Your task to perform on an android device: Go to Android settings Image 0: 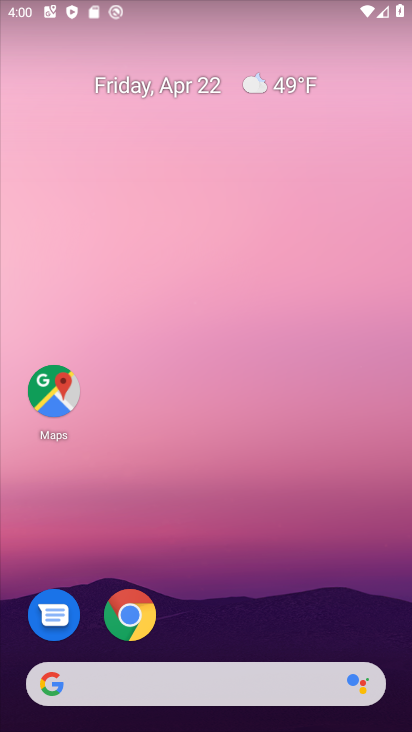
Step 0: drag from (224, 722) to (224, 81)
Your task to perform on an android device: Go to Android settings Image 1: 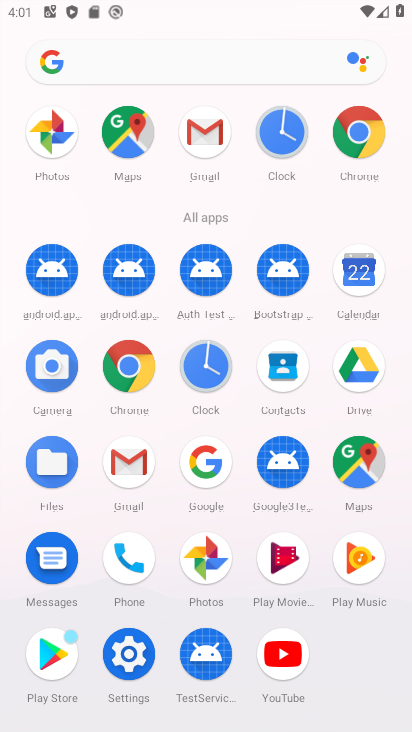
Step 1: click (126, 660)
Your task to perform on an android device: Go to Android settings Image 2: 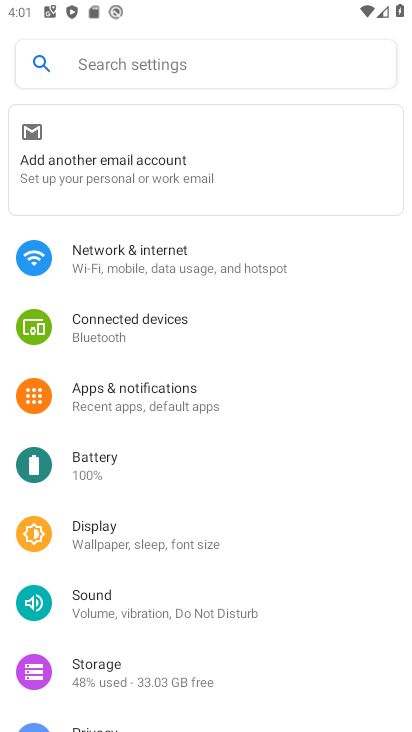
Step 2: drag from (187, 625) to (188, 317)
Your task to perform on an android device: Go to Android settings Image 3: 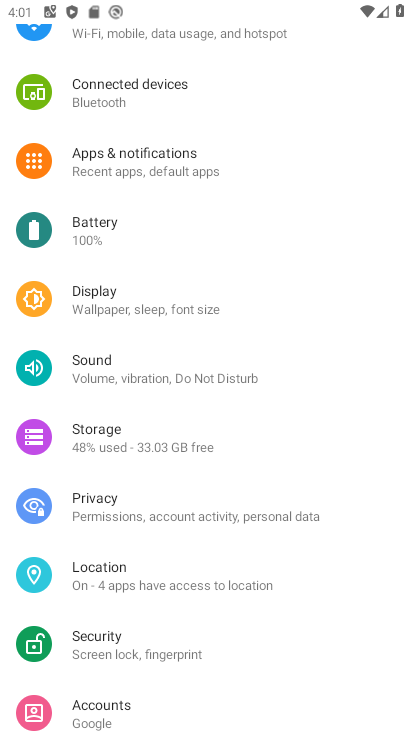
Step 3: drag from (200, 685) to (189, 308)
Your task to perform on an android device: Go to Android settings Image 4: 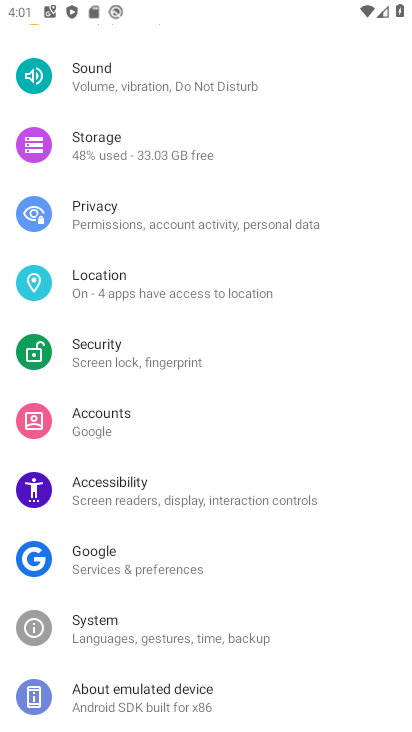
Step 4: drag from (181, 672) to (186, 273)
Your task to perform on an android device: Go to Android settings Image 5: 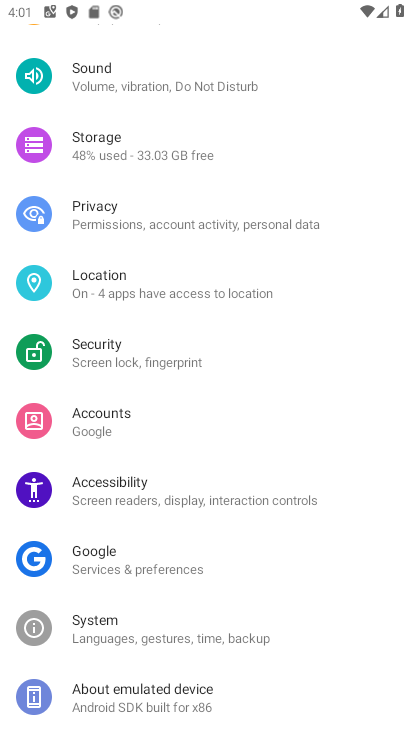
Step 5: click (146, 689)
Your task to perform on an android device: Go to Android settings Image 6: 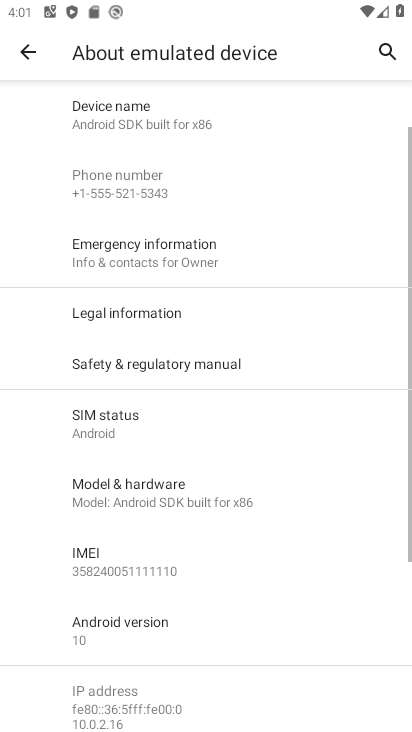
Step 6: click (132, 618)
Your task to perform on an android device: Go to Android settings Image 7: 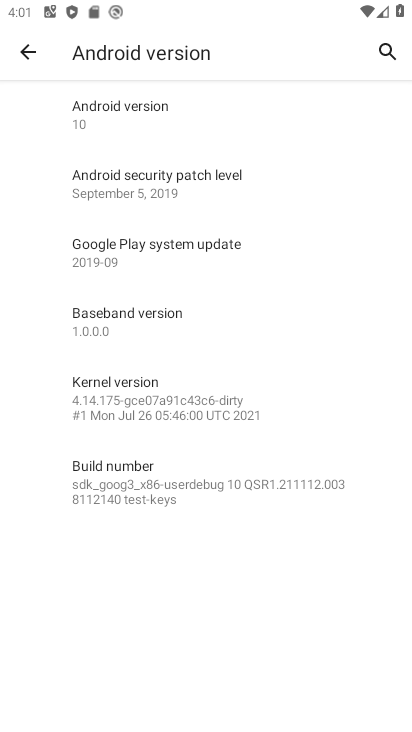
Step 7: task complete